Your task to perform on an android device: Open ESPN.com Image 0: 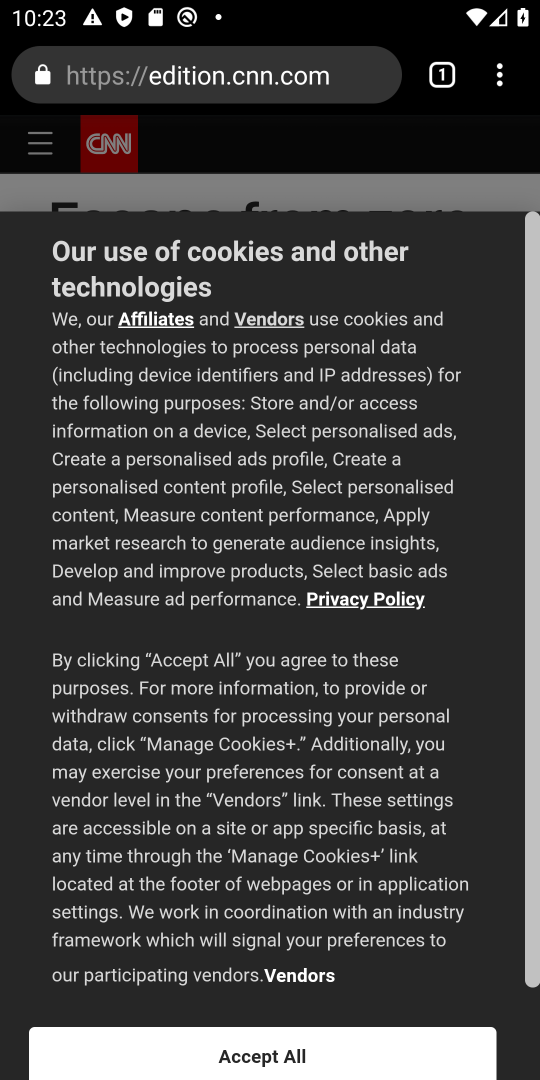
Step 0: press home button
Your task to perform on an android device: Open ESPN.com Image 1: 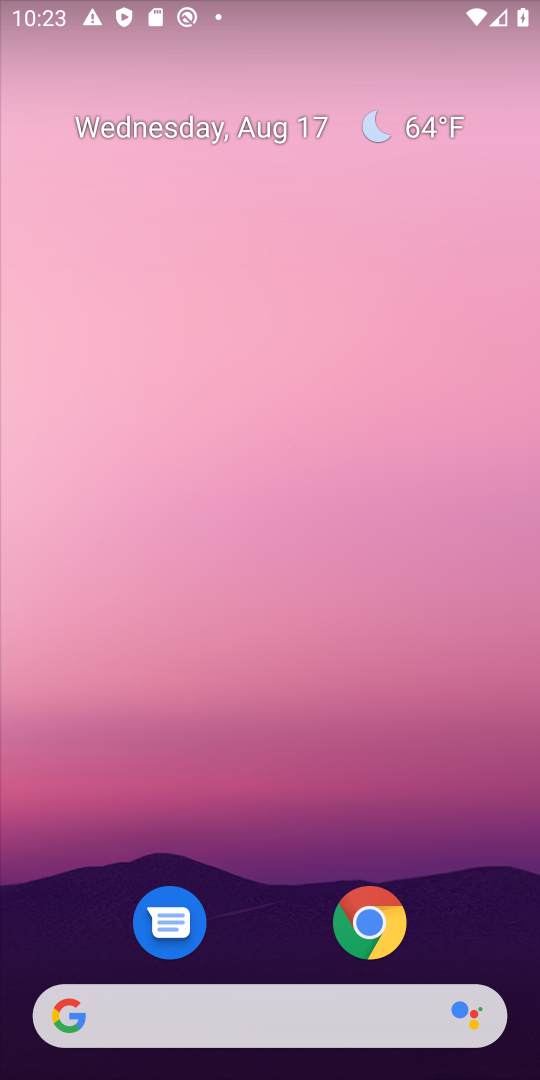
Step 1: drag from (289, 843) to (309, 122)
Your task to perform on an android device: Open ESPN.com Image 2: 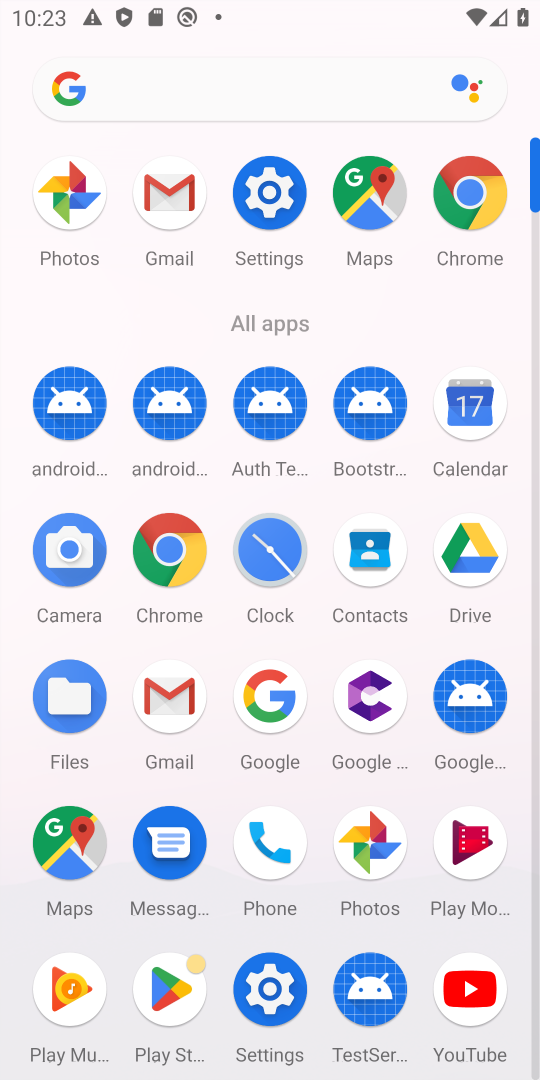
Step 2: click (176, 543)
Your task to perform on an android device: Open ESPN.com Image 3: 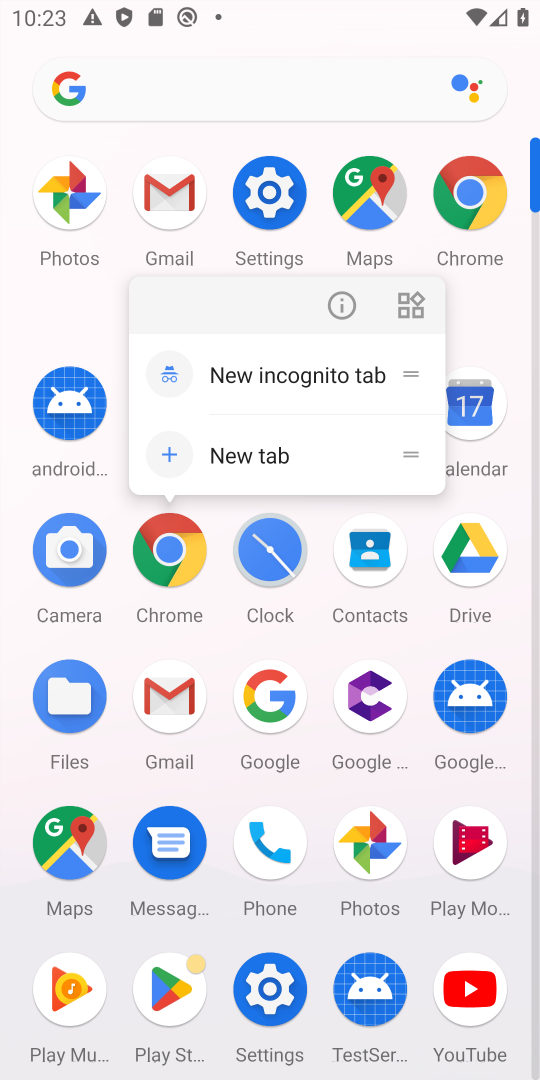
Step 3: click (164, 552)
Your task to perform on an android device: Open ESPN.com Image 4: 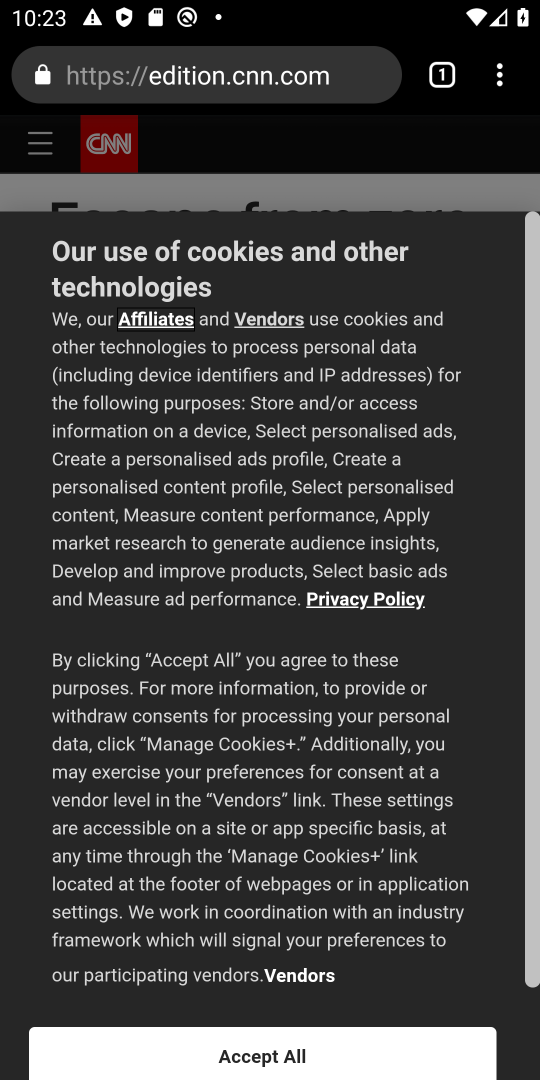
Step 4: click (349, 90)
Your task to perform on an android device: Open ESPN.com Image 5: 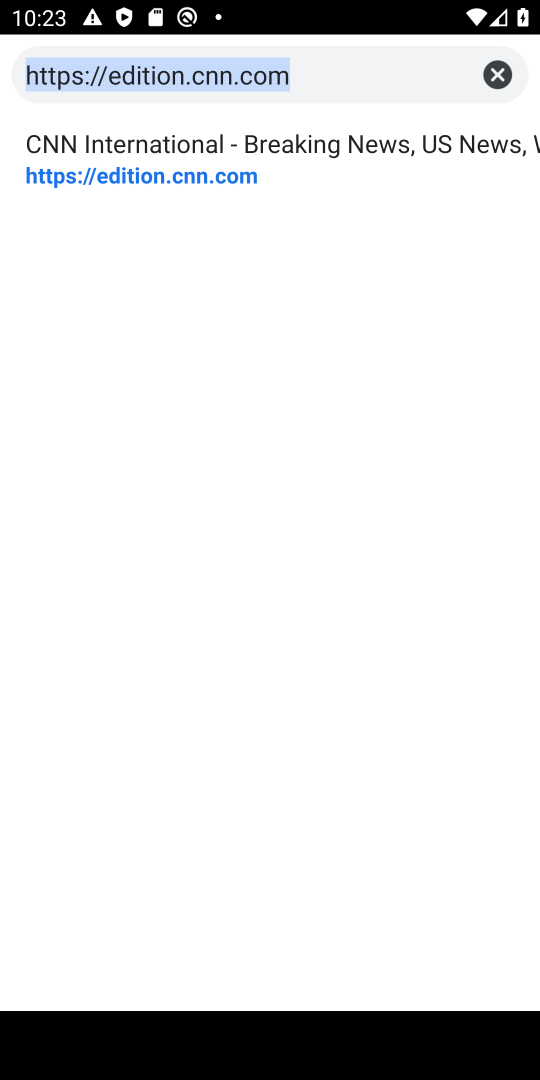
Step 5: type "espn"
Your task to perform on an android device: Open ESPN.com Image 6: 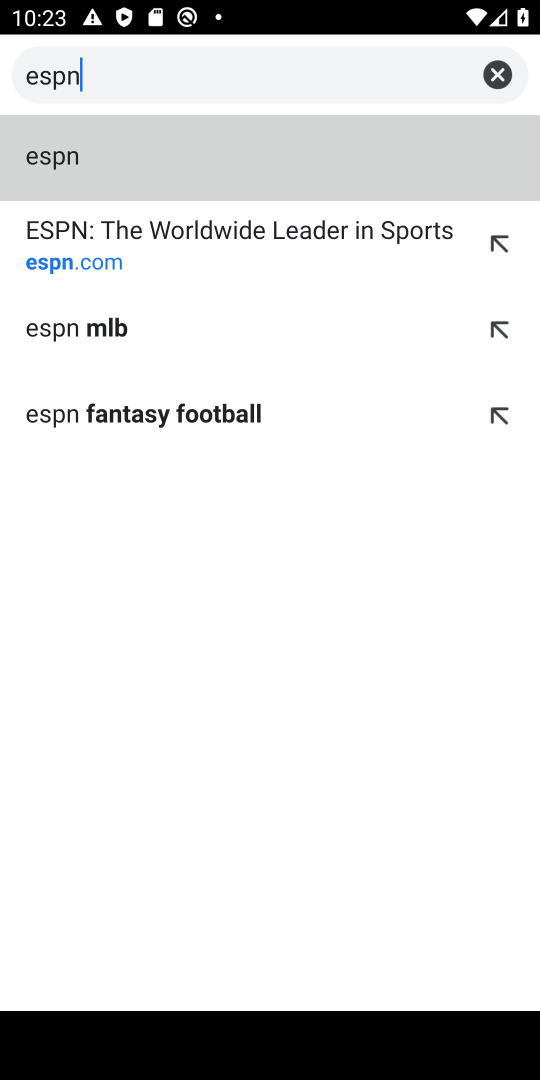
Step 6: type ""
Your task to perform on an android device: Open ESPN.com Image 7: 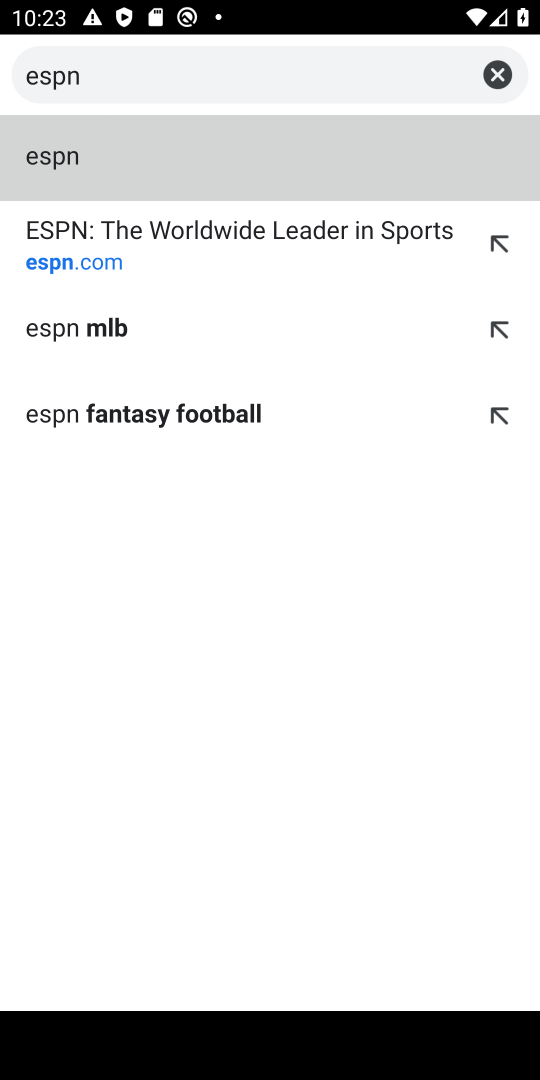
Step 7: click (97, 262)
Your task to perform on an android device: Open ESPN.com Image 8: 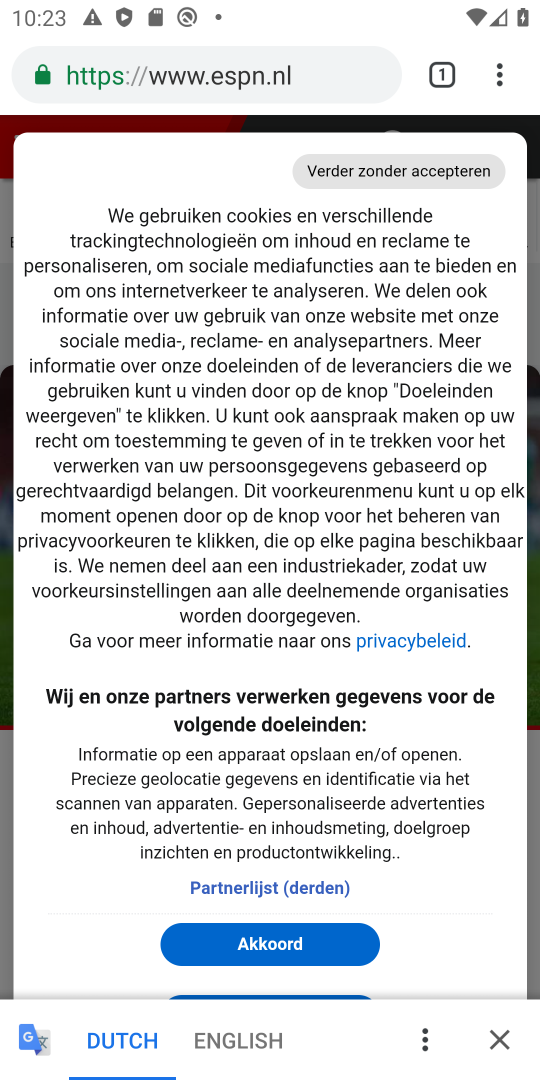
Step 8: task complete